Your task to perform on an android device: delete browsing data in the chrome app Image 0: 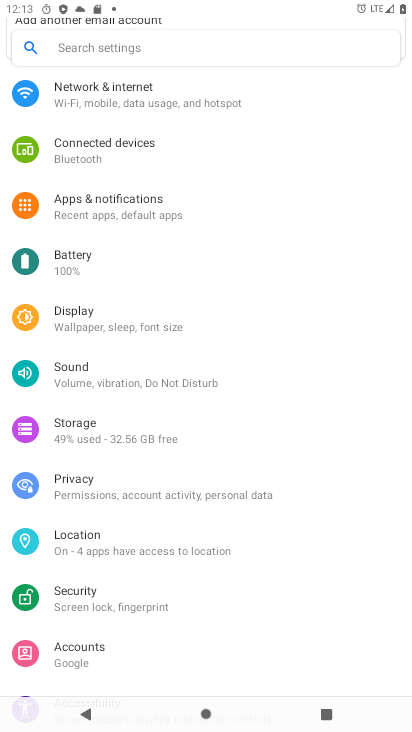
Step 0: press home button
Your task to perform on an android device: delete browsing data in the chrome app Image 1: 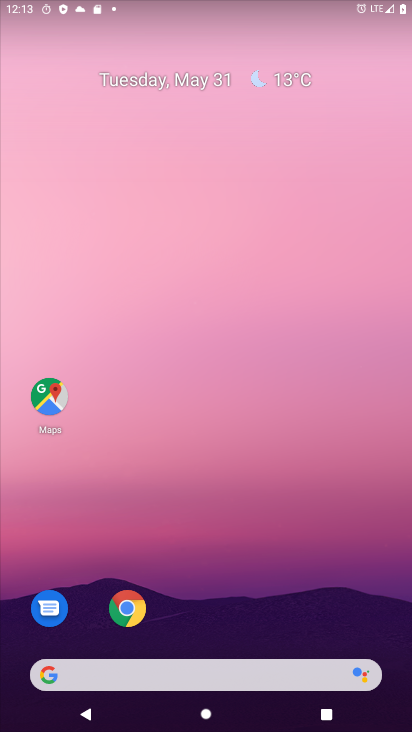
Step 1: click (128, 606)
Your task to perform on an android device: delete browsing data in the chrome app Image 2: 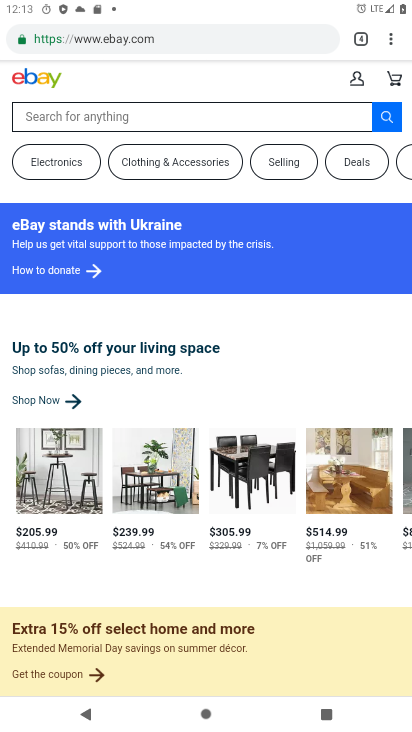
Step 2: click (391, 42)
Your task to perform on an android device: delete browsing data in the chrome app Image 3: 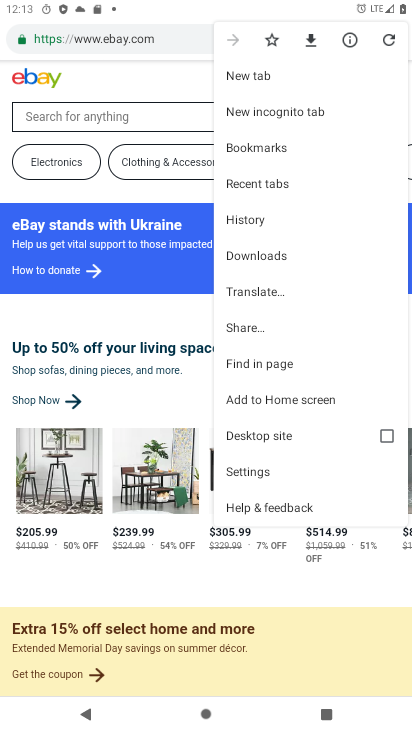
Step 3: click (258, 470)
Your task to perform on an android device: delete browsing data in the chrome app Image 4: 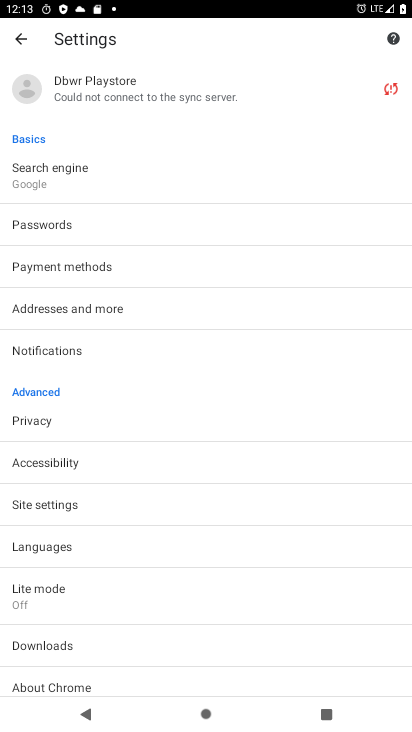
Step 4: click (57, 426)
Your task to perform on an android device: delete browsing data in the chrome app Image 5: 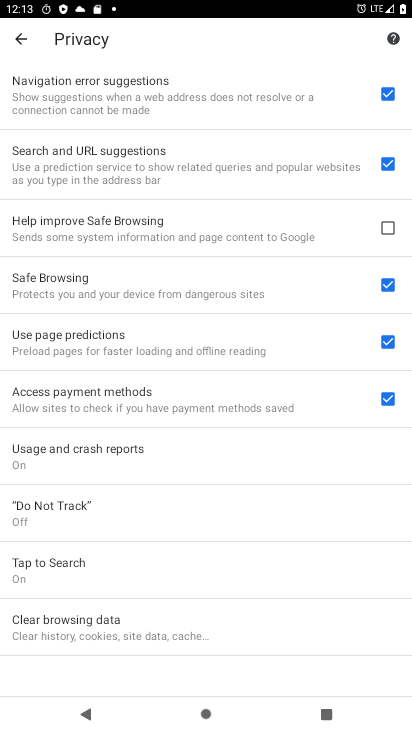
Step 5: click (83, 626)
Your task to perform on an android device: delete browsing data in the chrome app Image 6: 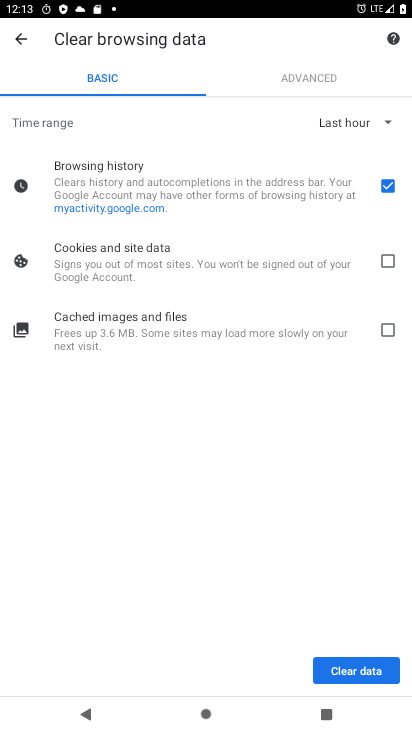
Step 6: click (366, 675)
Your task to perform on an android device: delete browsing data in the chrome app Image 7: 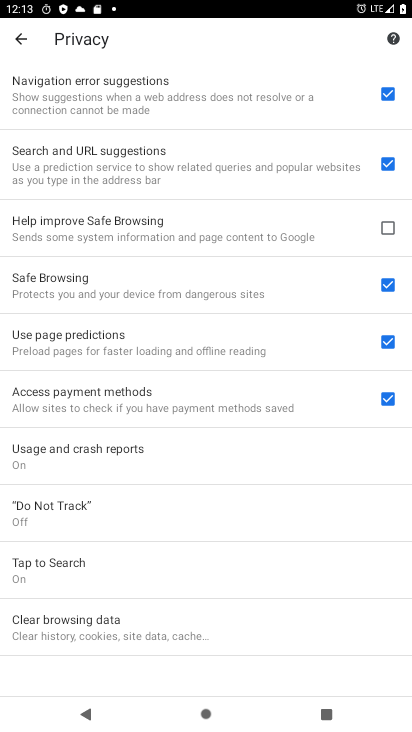
Step 7: task complete